Your task to perform on an android device: Show me the alarms in the clock app Image 0: 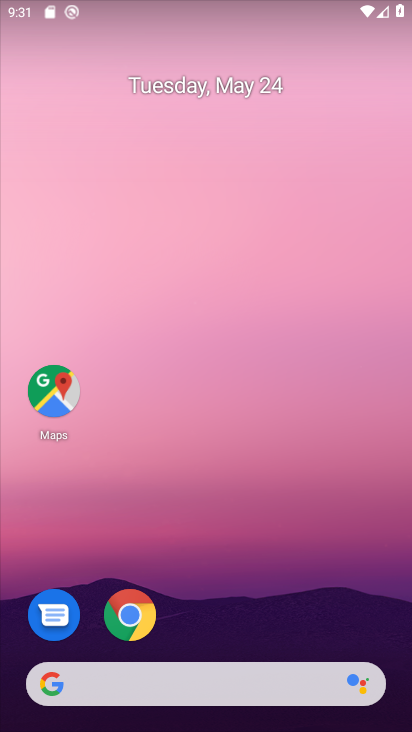
Step 0: drag from (344, 600) to (352, 265)
Your task to perform on an android device: Show me the alarms in the clock app Image 1: 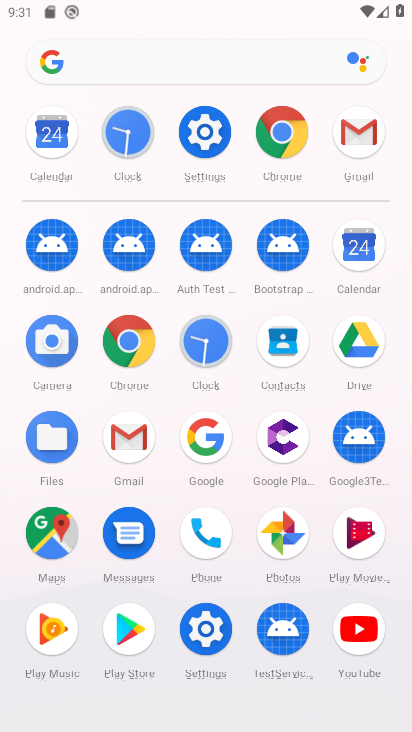
Step 1: click (206, 357)
Your task to perform on an android device: Show me the alarms in the clock app Image 2: 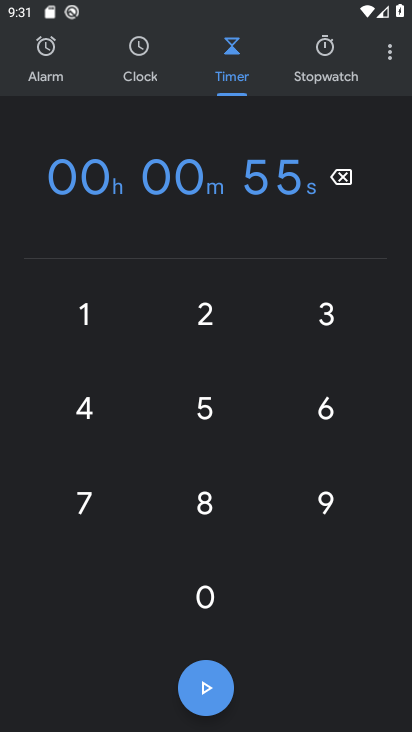
Step 2: click (38, 74)
Your task to perform on an android device: Show me the alarms in the clock app Image 3: 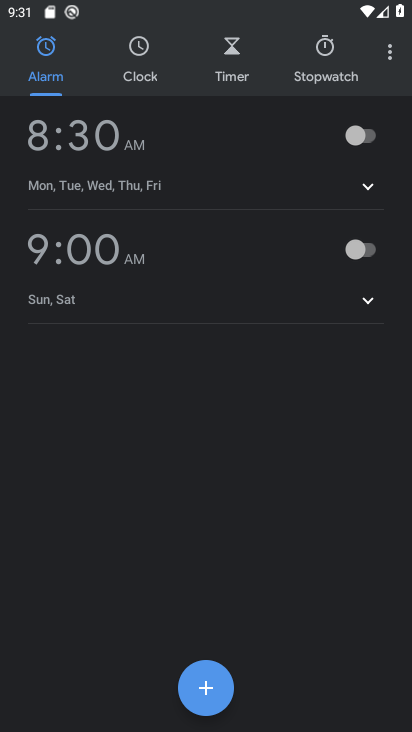
Step 3: task complete